Your task to perform on an android device: toggle airplane mode Image 0: 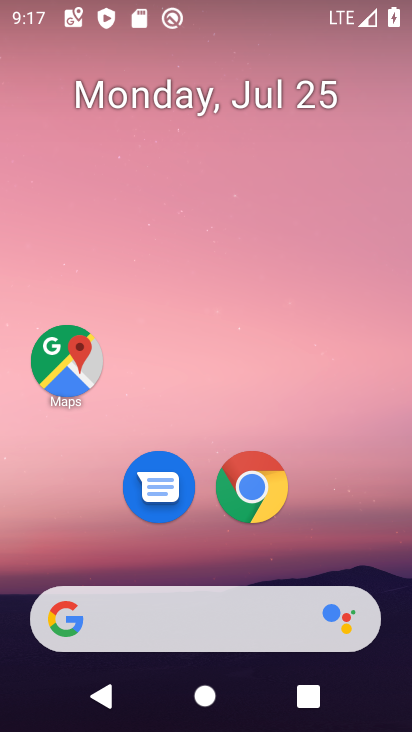
Step 0: drag from (378, 28) to (270, 508)
Your task to perform on an android device: toggle airplane mode Image 1: 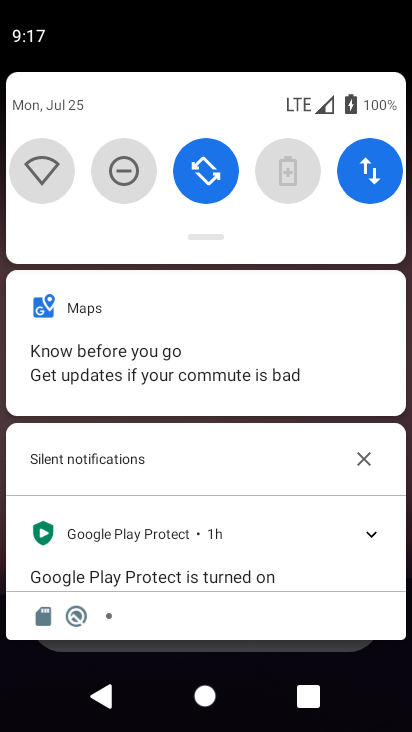
Step 1: drag from (203, 236) to (201, 641)
Your task to perform on an android device: toggle airplane mode Image 2: 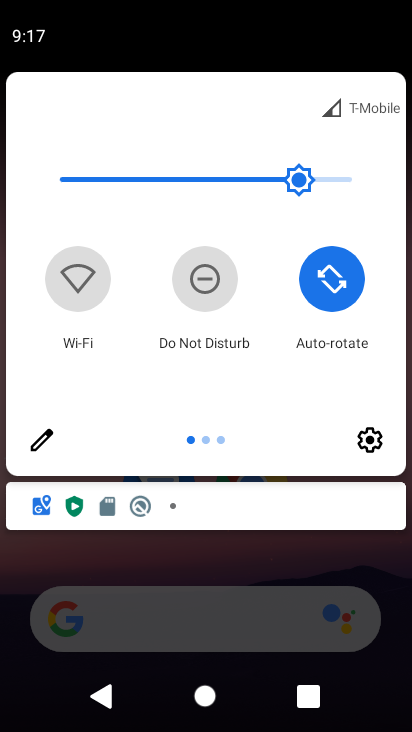
Step 2: drag from (344, 282) to (17, 243)
Your task to perform on an android device: toggle airplane mode Image 3: 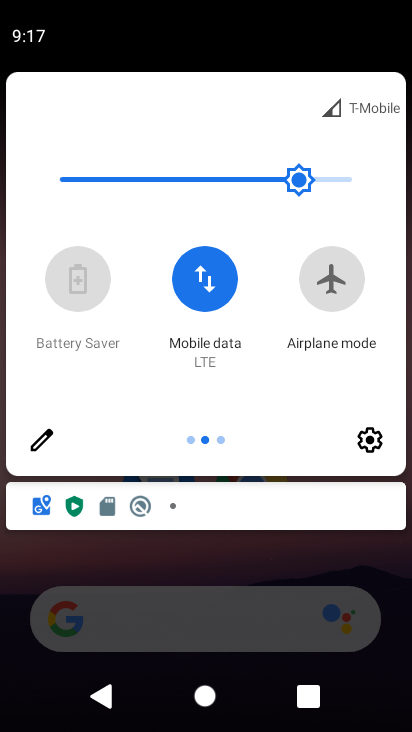
Step 3: click (323, 276)
Your task to perform on an android device: toggle airplane mode Image 4: 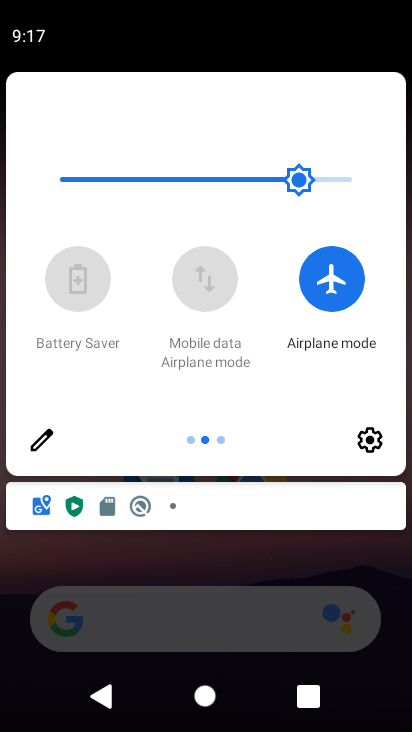
Step 4: task complete